Your task to perform on an android device: Go to battery settings Image 0: 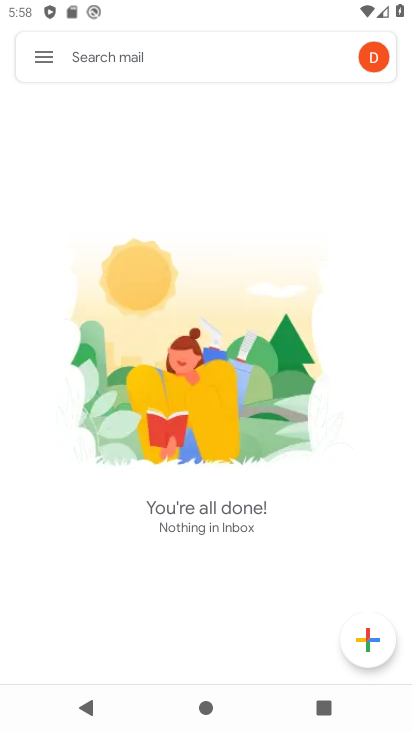
Step 0: press home button
Your task to perform on an android device: Go to battery settings Image 1: 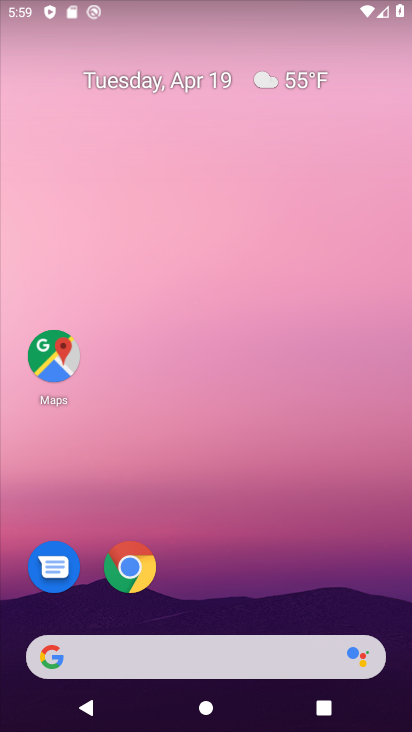
Step 1: drag from (261, 567) to (186, 24)
Your task to perform on an android device: Go to battery settings Image 2: 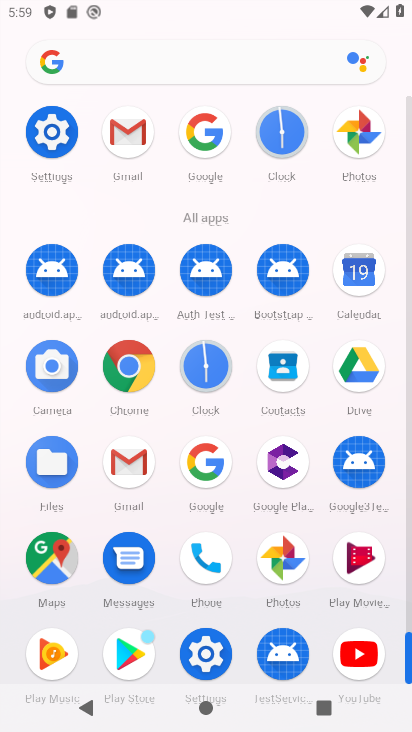
Step 2: click (220, 652)
Your task to perform on an android device: Go to battery settings Image 3: 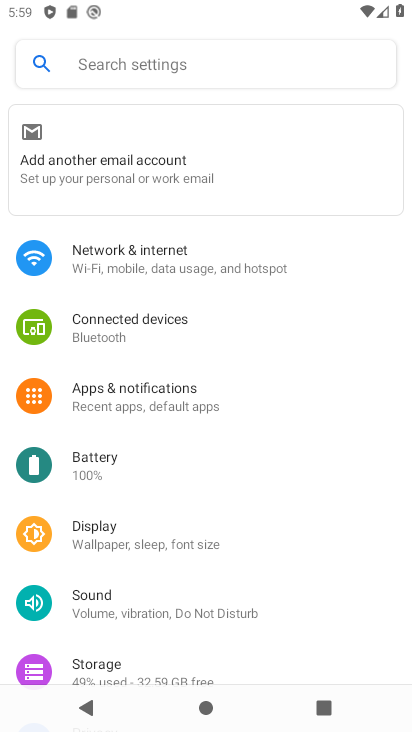
Step 3: click (106, 476)
Your task to perform on an android device: Go to battery settings Image 4: 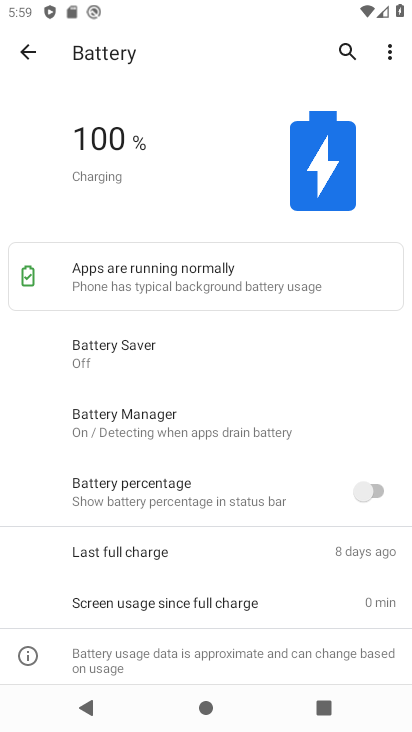
Step 4: task complete